Your task to perform on an android device: check storage Image 0: 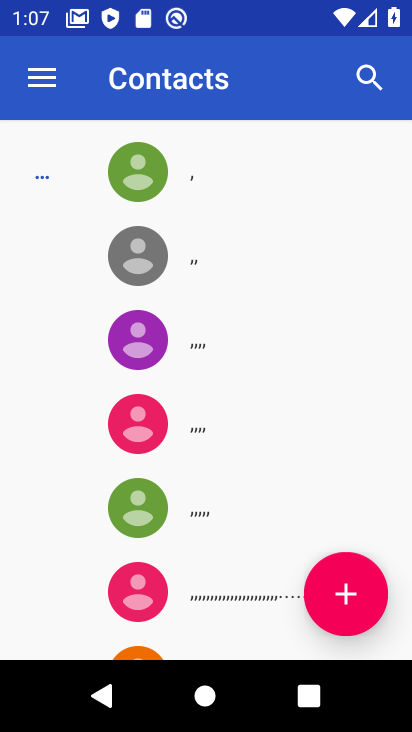
Step 0: press home button
Your task to perform on an android device: check storage Image 1: 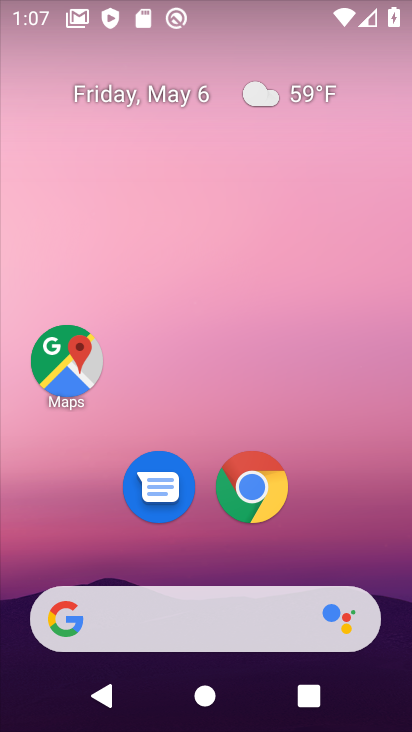
Step 1: drag from (159, 595) to (235, 135)
Your task to perform on an android device: check storage Image 2: 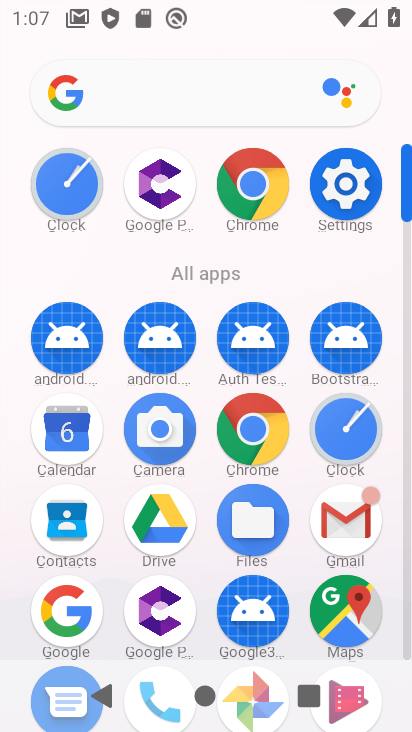
Step 2: click (356, 190)
Your task to perform on an android device: check storage Image 3: 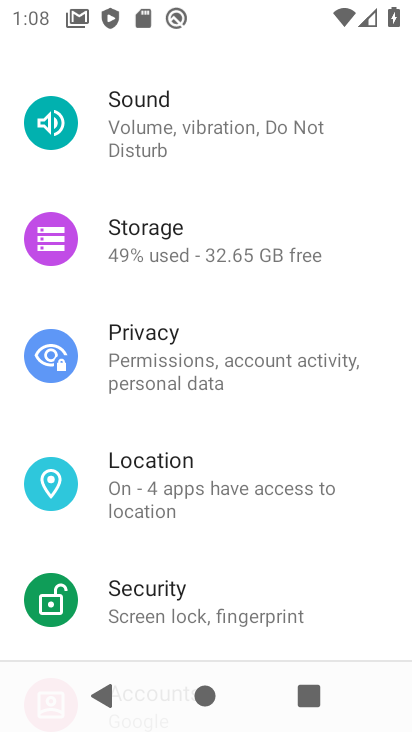
Step 3: drag from (244, 528) to (265, 309)
Your task to perform on an android device: check storage Image 4: 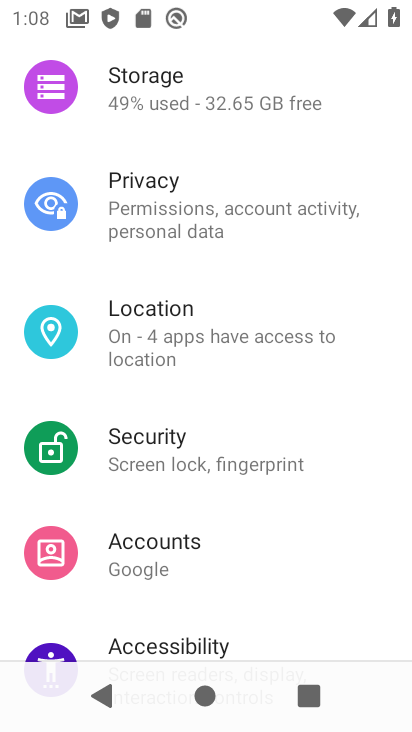
Step 4: click (205, 99)
Your task to perform on an android device: check storage Image 5: 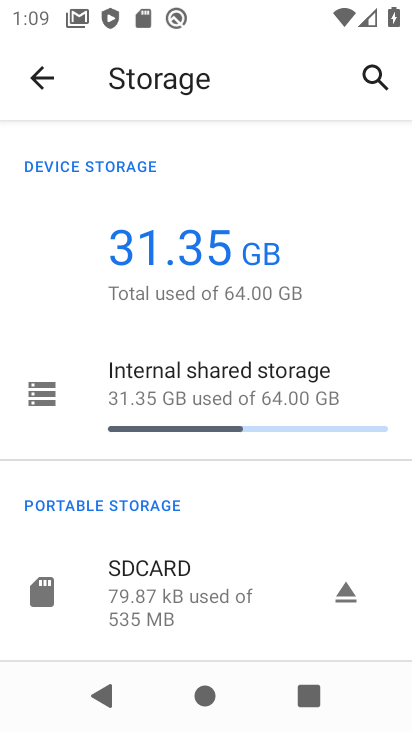
Step 5: click (212, 416)
Your task to perform on an android device: check storage Image 6: 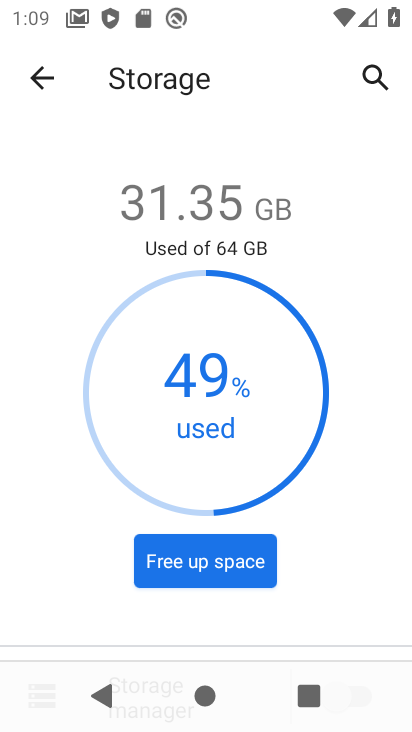
Step 6: task complete